Your task to perform on an android device: Search for "duracell triple a" on bestbuy, select the first entry, and add it to the cart. Image 0: 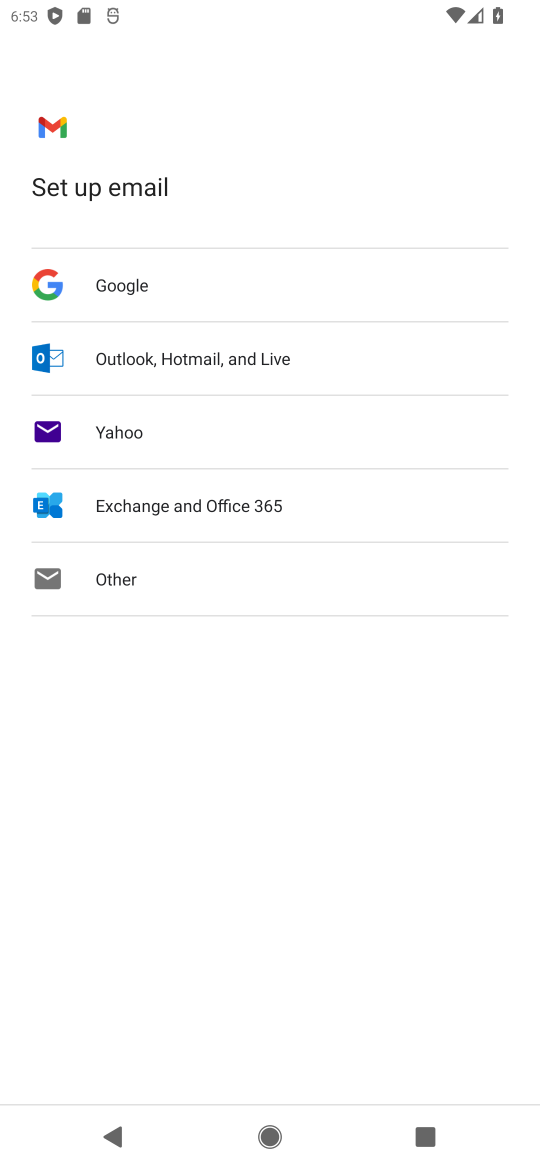
Step 0: press home button
Your task to perform on an android device: Search for "duracell triple a" on bestbuy, select the first entry, and add it to the cart. Image 1: 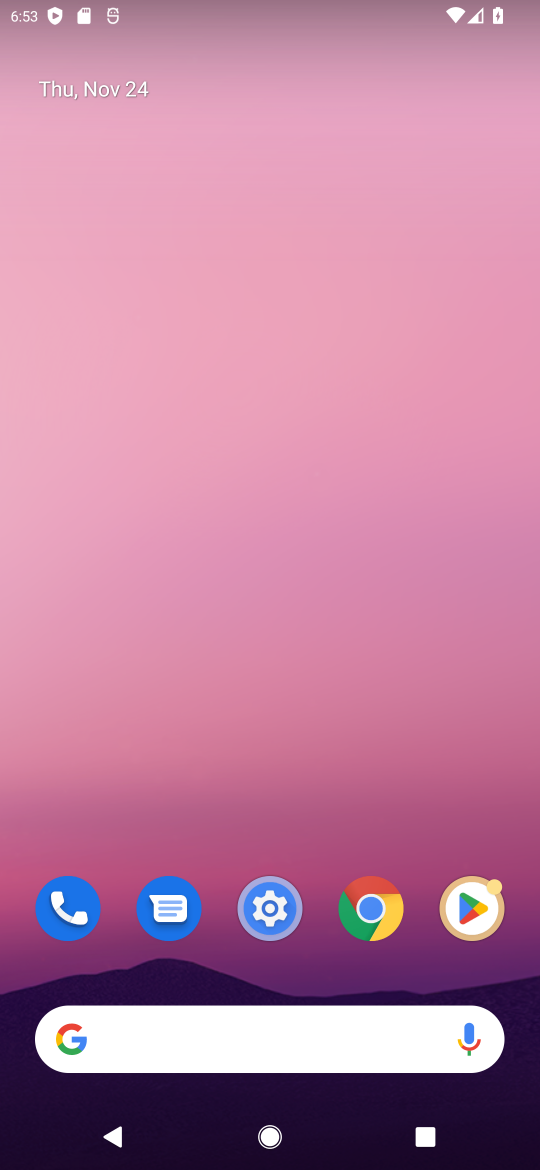
Step 1: click (259, 1043)
Your task to perform on an android device: Search for "duracell triple a" on bestbuy, select the first entry, and add it to the cart. Image 2: 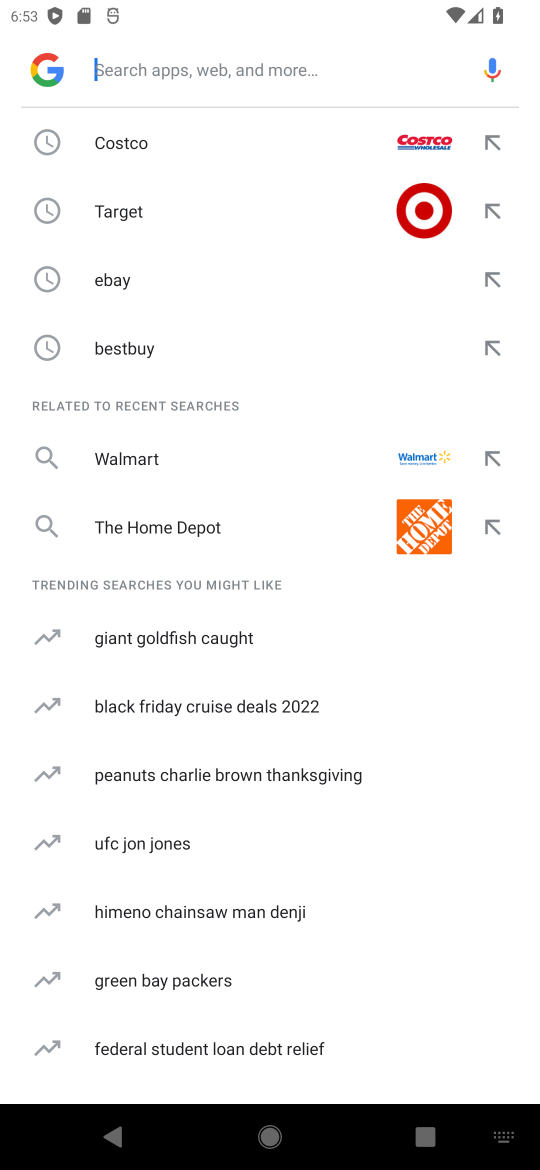
Step 2: type "bestbuy"
Your task to perform on an android device: Search for "duracell triple a" on bestbuy, select the first entry, and add it to the cart. Image 3: 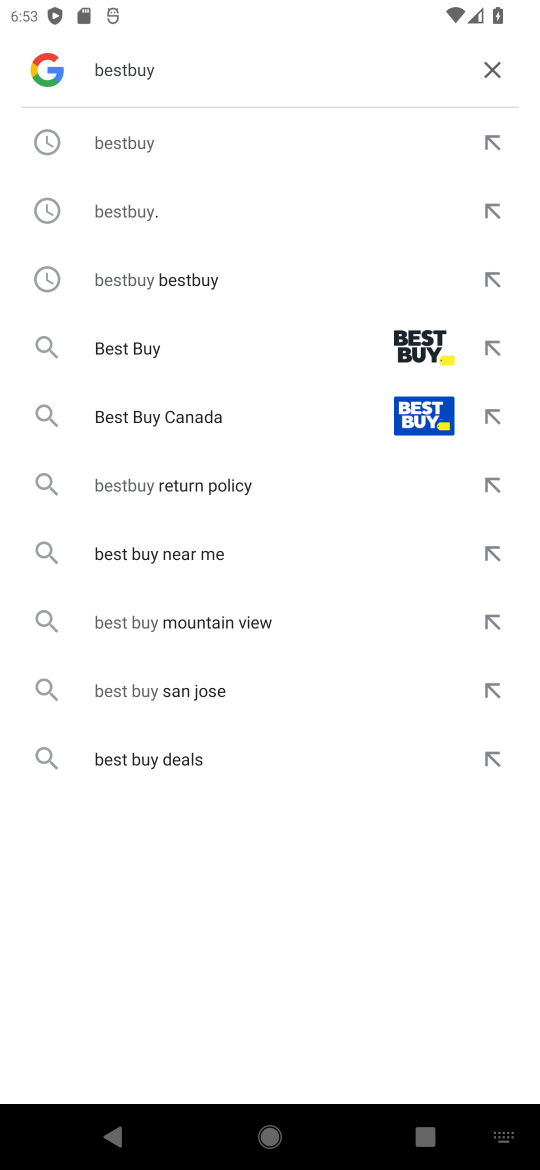
Step 3: click (209, 356)
Your task to perform on an android device: Search for "duracell triple a" on bestbuy, select the first entry, and add it to the cart. Image 4: 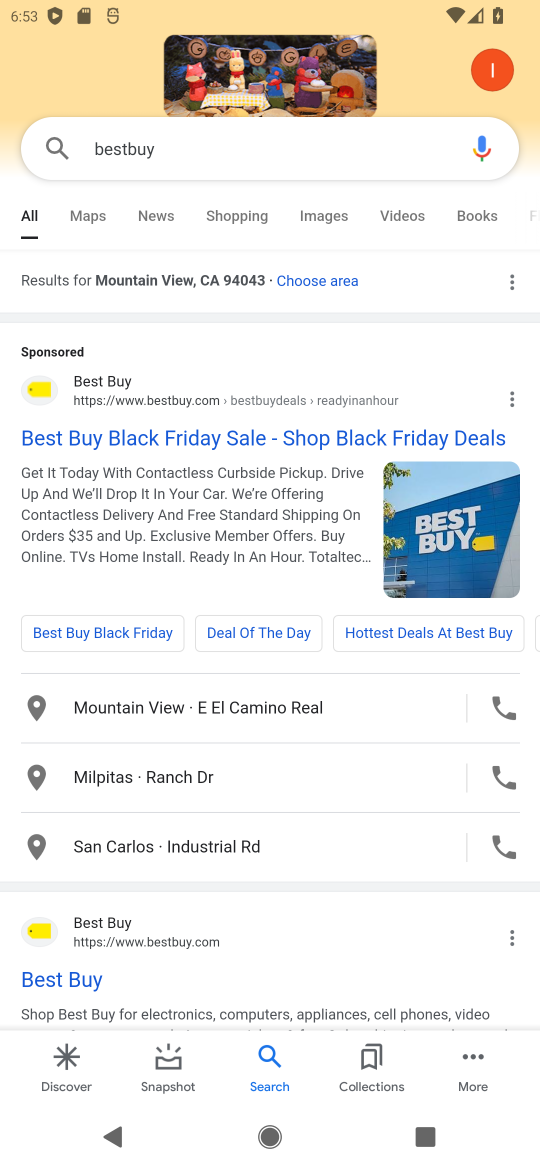
Step 4: click (120, 453)
Your task to perform on an android device: Search for "duracell triple a" on bestbuy, select the first entry, and add it to the cart. Image 5: 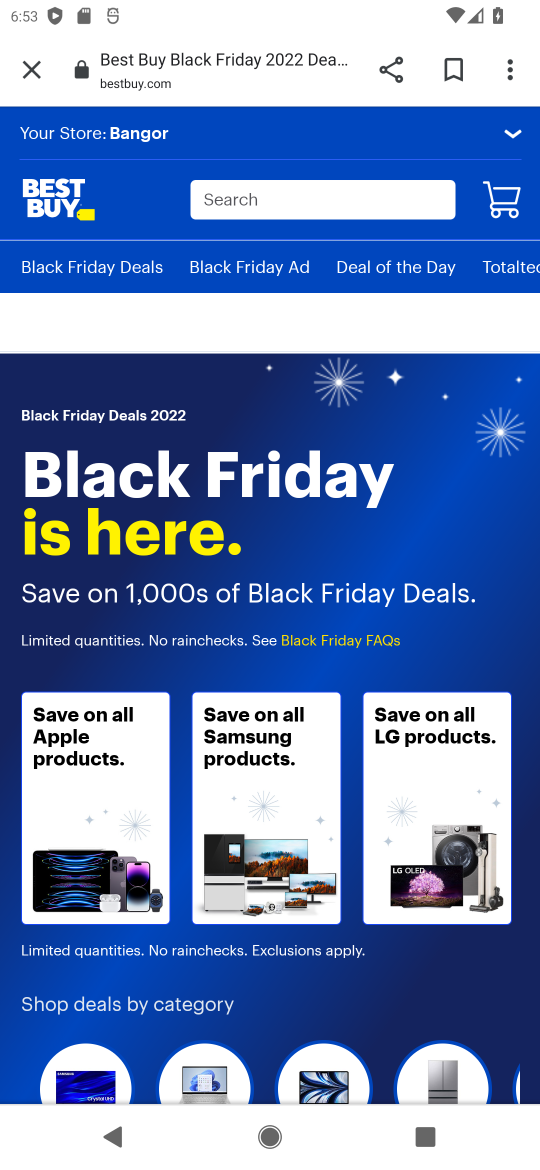
Step 5: click (347, 203)
Your task to perform on an android device: Search for "duracell triple a" on bestbuy, select the first entry, and add it to the cart. Image 6: 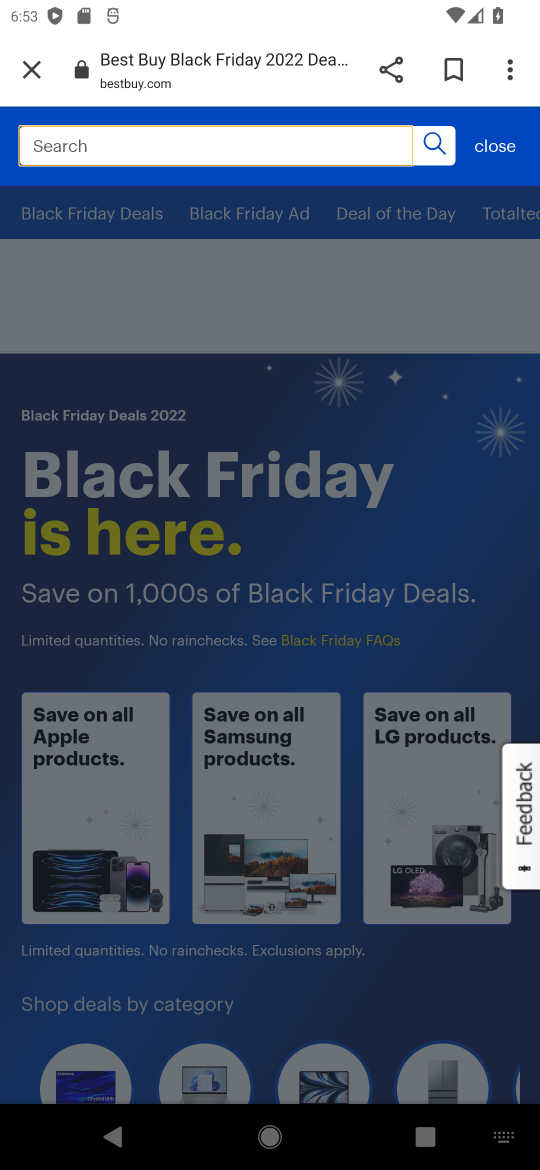
Step 6: type "duracell"
Your task to perform on an android device: Search for "duracell triple a" on bestbuy, select the first entry, and add it to the cart. Image 7: 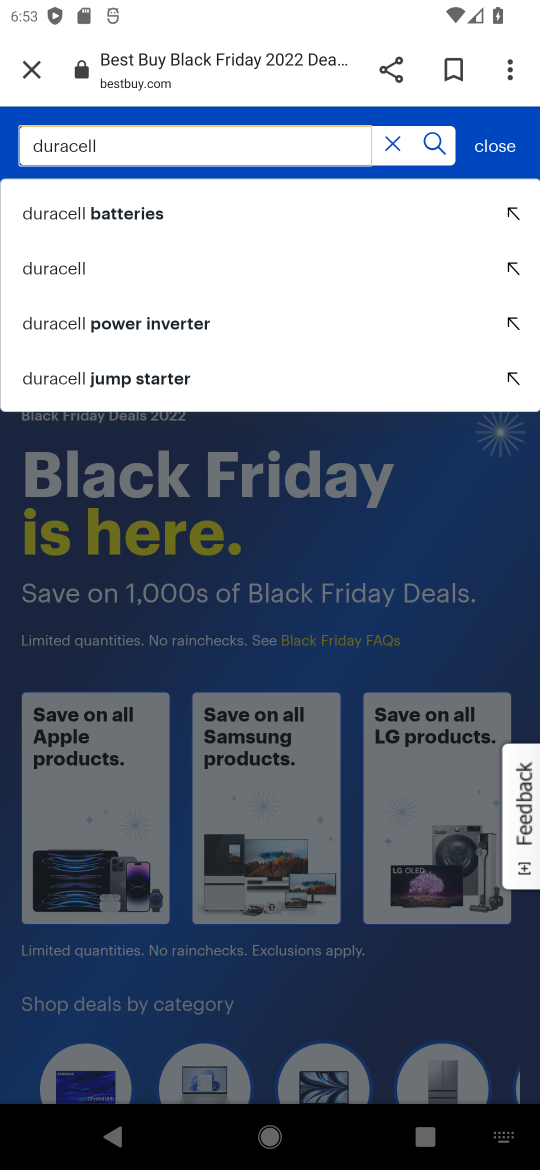
Step 7: click (180, 219)
Your task to perform on an android device: Search for "duracell triple a" on bestbuy, select the first entry, and add it to the cart. Image 8: 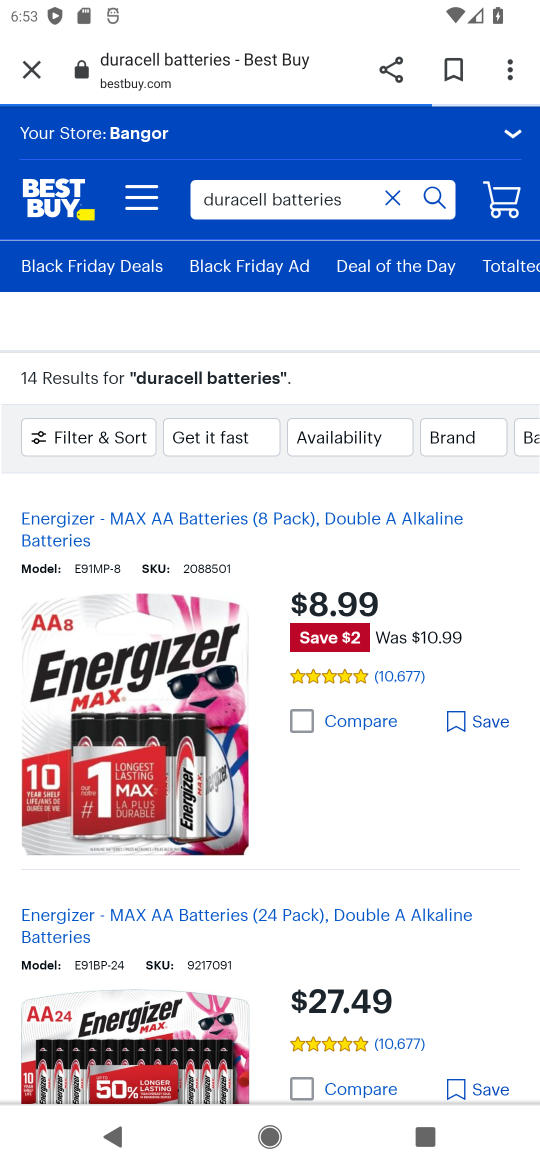
Step 8: click (138, 707)
Your task to perform on an android device: Search for "duracell triple a" on bestbuy, select the first entry, and add it to the cart. Image 9: 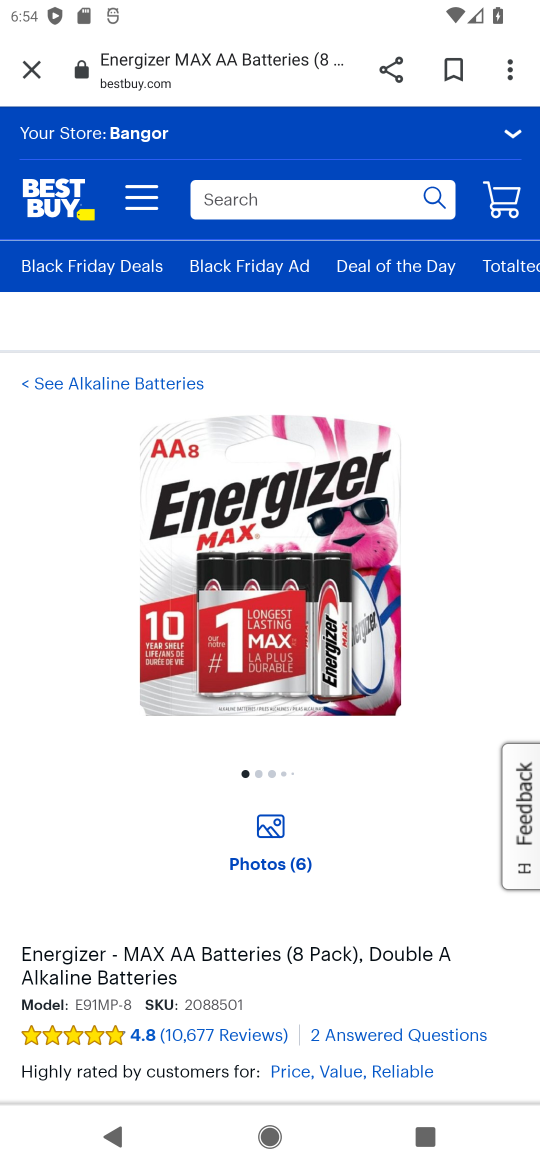
Step 9: drag from (165, 907) to (139, 482)
Your task to perform on an android device: Search for "duracell triple a" on bestbuy, select the first entry, and add it to the cart. Image 10: 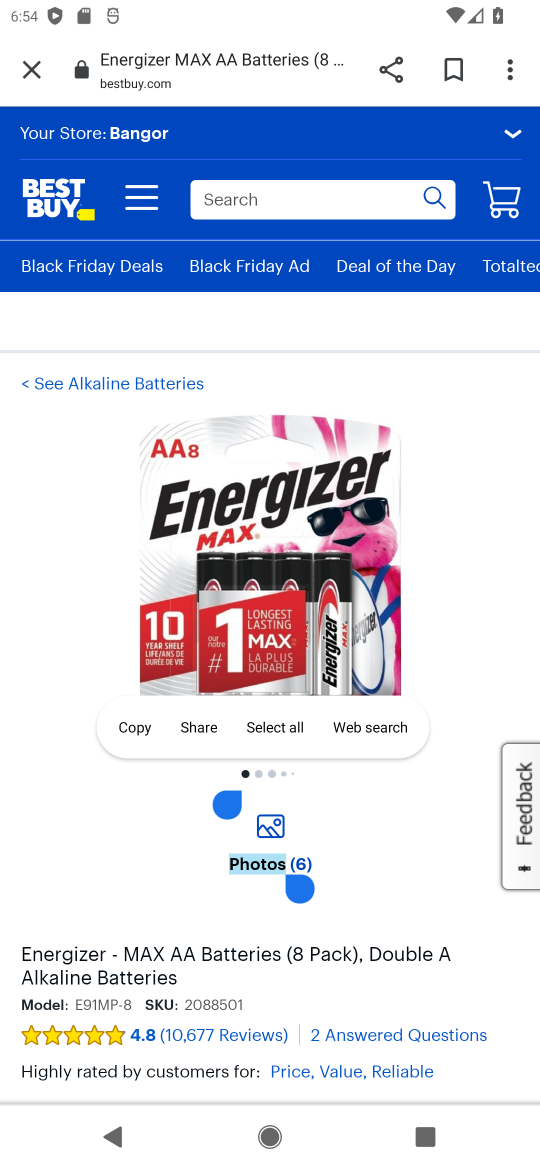
Step 10: drag from (65, 879) to (88, 334)
Your task to perform on an android device: Search for "duracell triple a" on bestbuy, select the first entry, and add it to the cart. Image 11: 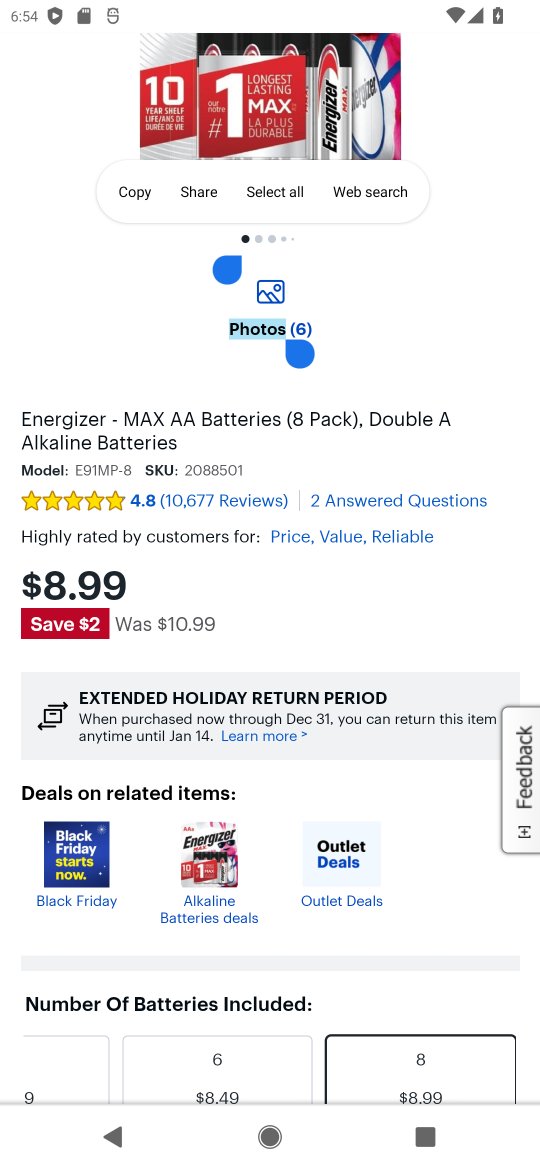
Step 11: drag from (411, 935) to (396, 532)
Your task to perform on an android device: Search for "duracell triple a" on bestbuy, select the first entry, and add it to the cart. Image 12: 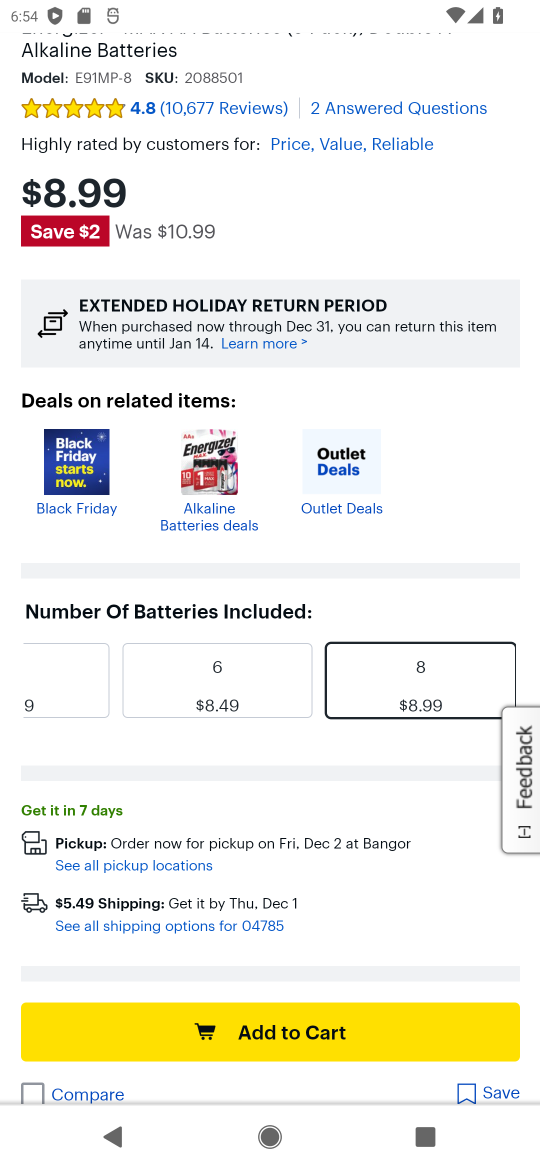
Step 12: click (294, 1006)
Your task to perform on an android device: Search for "duracell triple a" on bestbuy, select the first entry, and add it to the cart. Image 13: 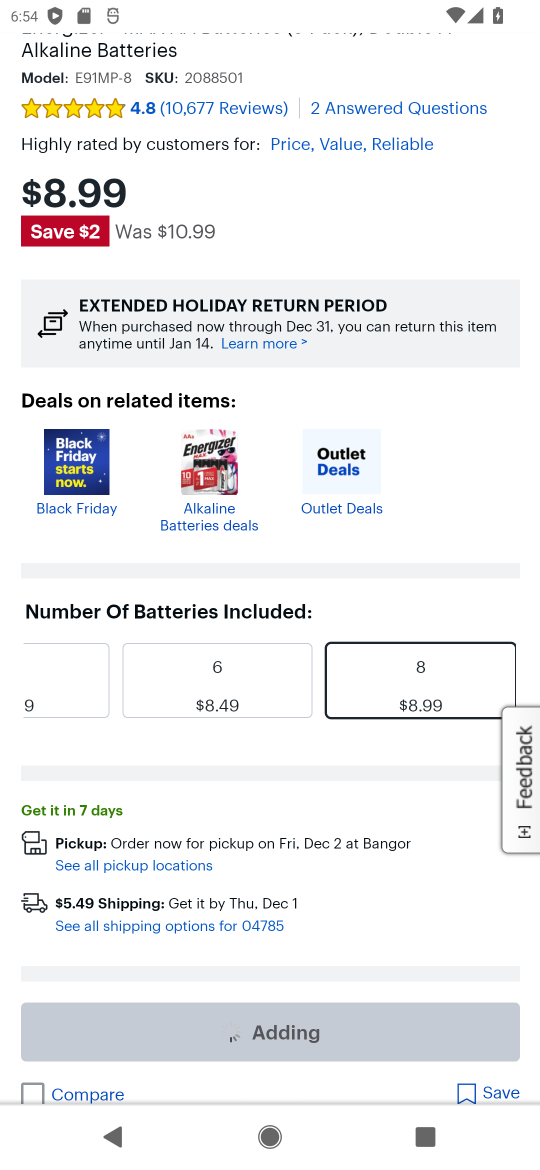
Step 13: task complete